Your task to perform on an android device: change text size in settings app Image 0: 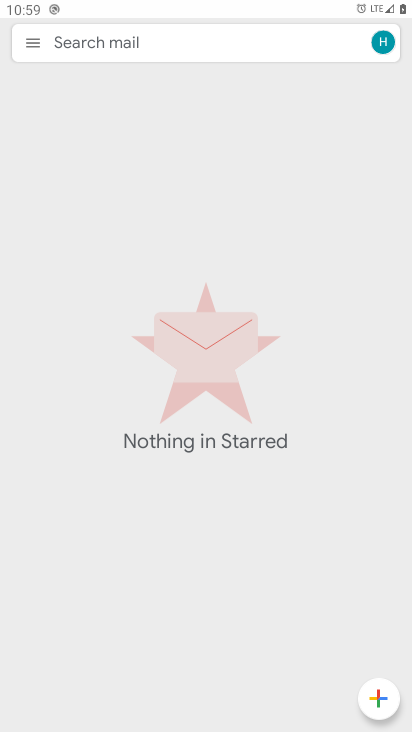
Step 0: press home button
Your task to perform on an android device: change text size in settings app Image 1: 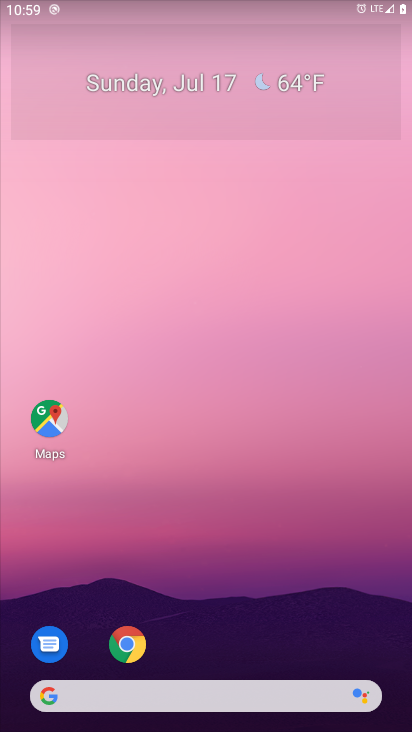
Step 1: drag from (263, 634) to (316, 44)
Your task to perform on an android device: change text size in settings app Image 2: 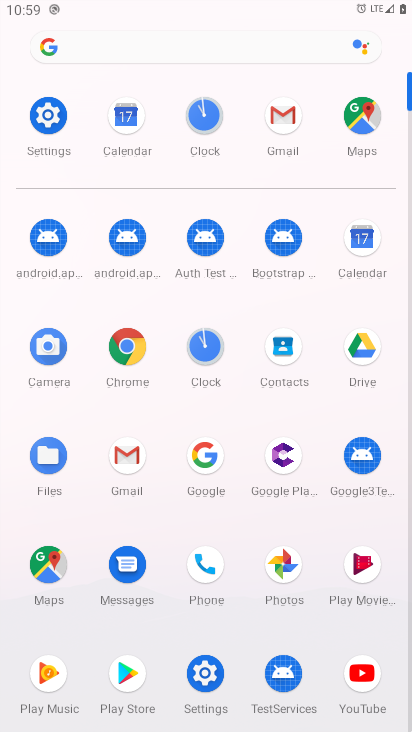
Step 2: click (49, 123)
Your task to perform on an android device: change text size in settings app Image 3: 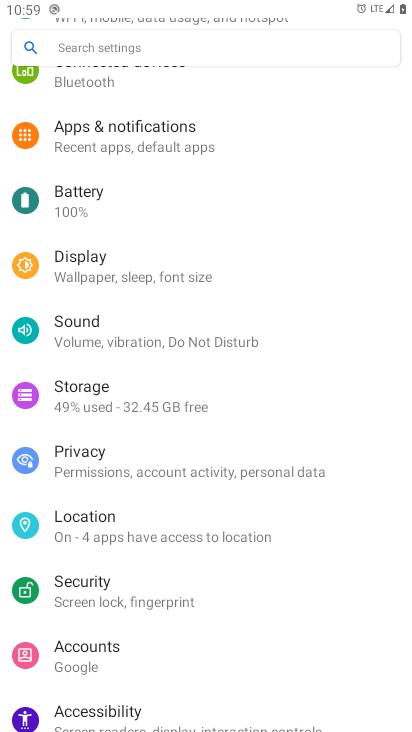
Step 3: click (234, 262)
Your task to perform on an android device: change text size in settings app Image 4: 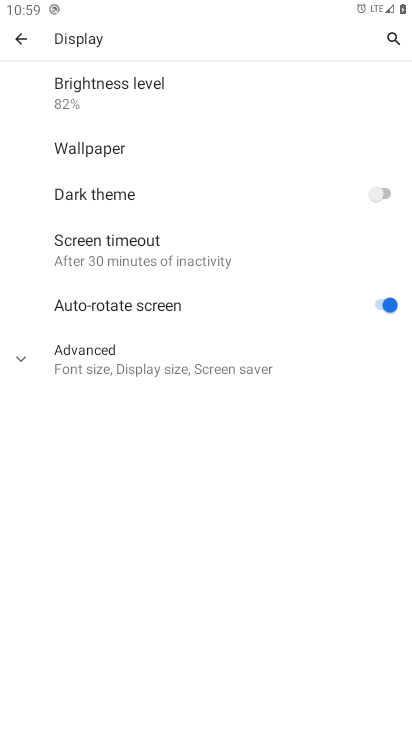
Step 4: click (22, 361)
Your task to perform on an android device: change text size in settings app Image 5: 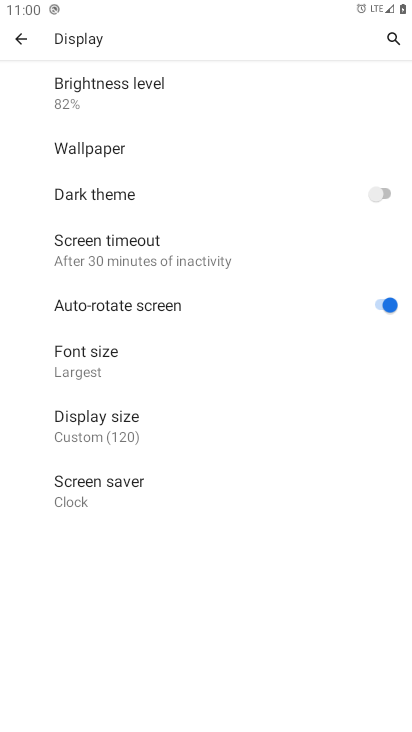
Step 5: click (120, 352)
Your task to perform on an android device: change text size in settings app Image 6: 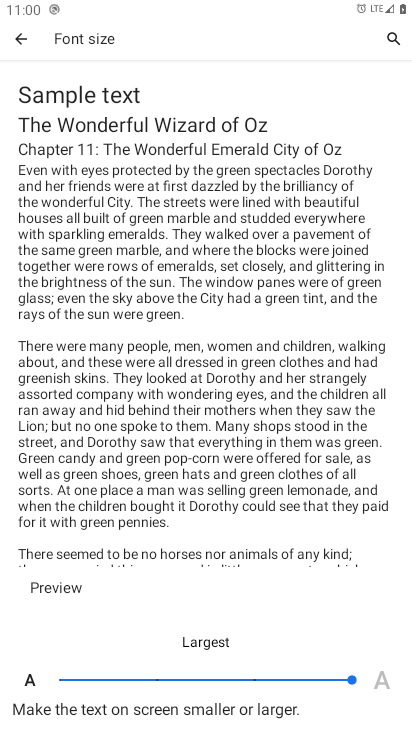
Step 6: click (307, 675)
Your task to perform on an android device: change text size in settings app Image 7: 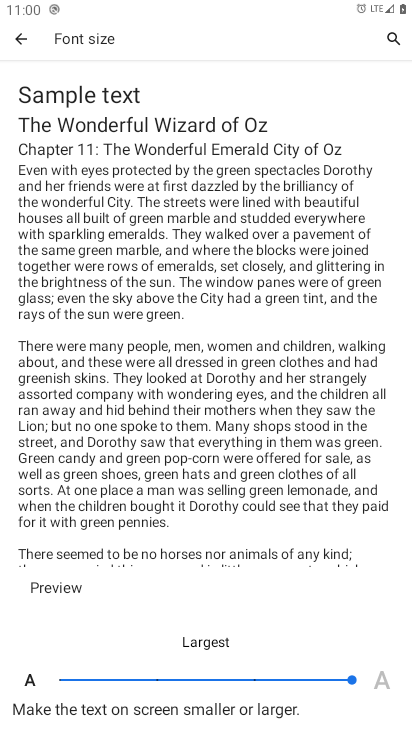
Step 7: task complete